Your task to perform on an android device: Open notification settings Image 0: 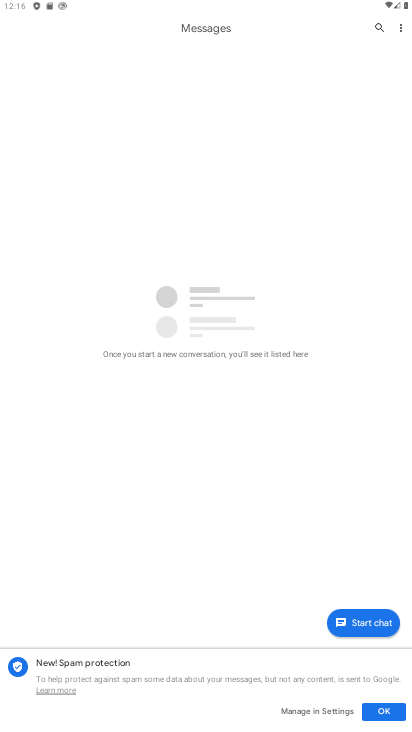
Step 0: press home button
Your task to perform on an android device: Open notification settings Image 1: 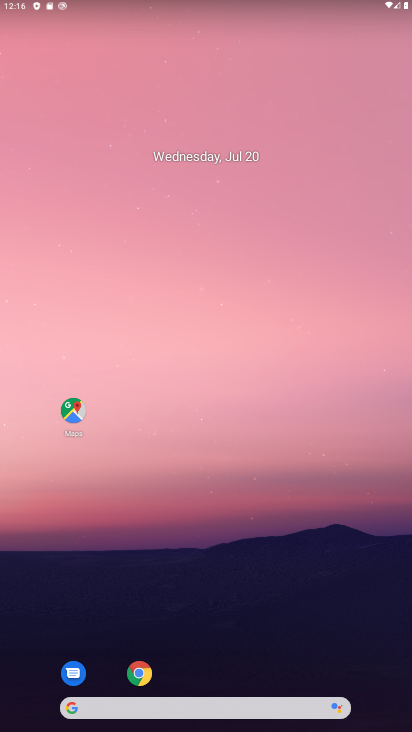
Step 1: drag from (204, 655) to (214, 7)
Your task to perform on an android device: Open notification settings Image 2: 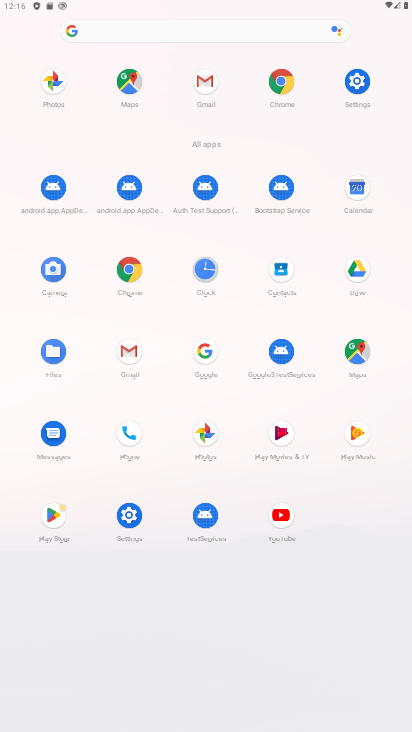
Step 2: click (140, 522)
Your task to perform on an android device: Open notification settings Image 3: 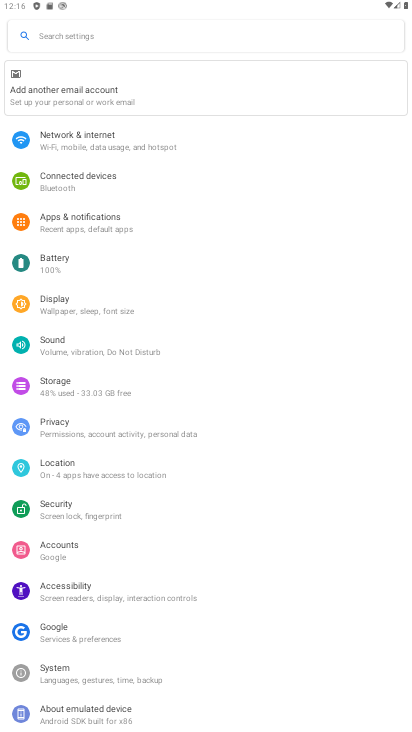
Step 3: click (115, 227)
Your task to perform on an android device: Open notification settings Image 4: 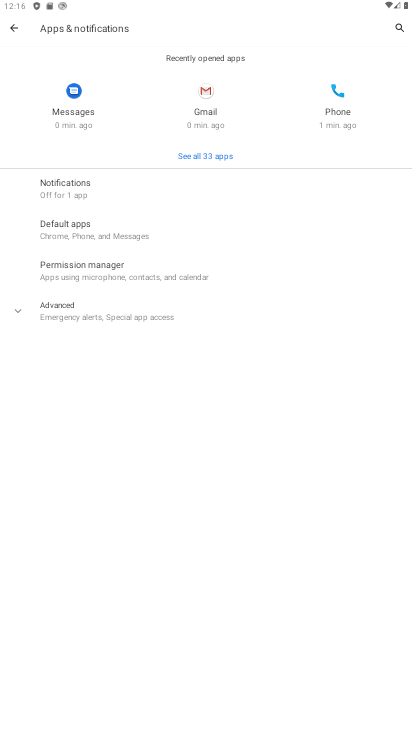
Step 4: click (85, 193)
Your task to perform on an android device: Open notification settings Image 5: 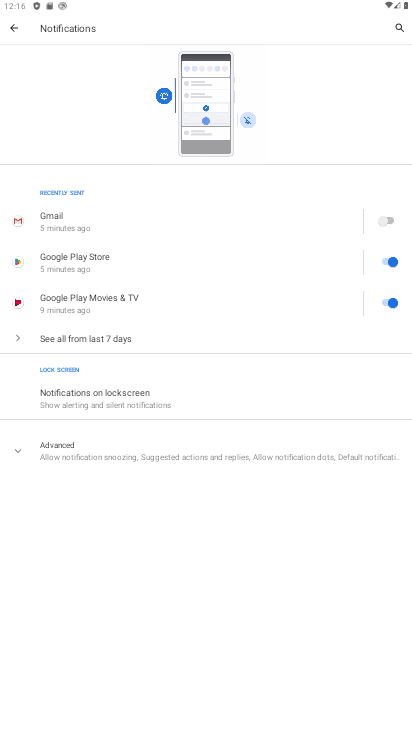
Step 5: task complete